Your task to perform on an android device: check android version Image 0: 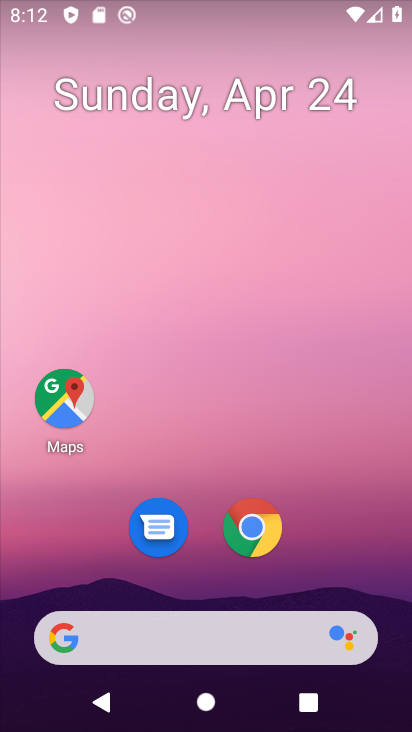
Step 0: drag from (342, 534) to (263, 120)
Your task to perform on an android device: check android version Image 1: 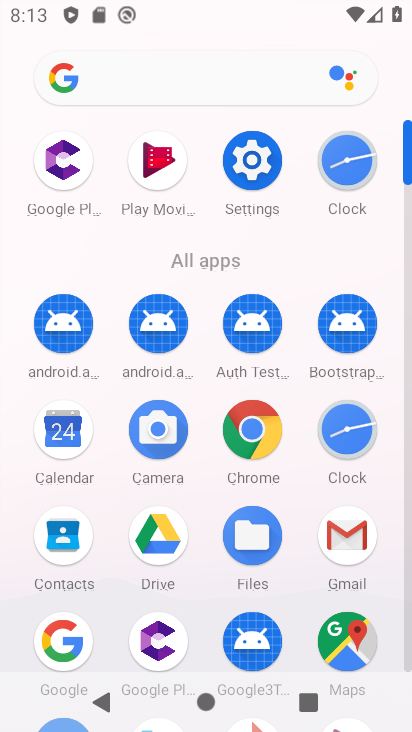
Step 1: click (257, 169)
Your task to perform on an android device: check android version Image 2: 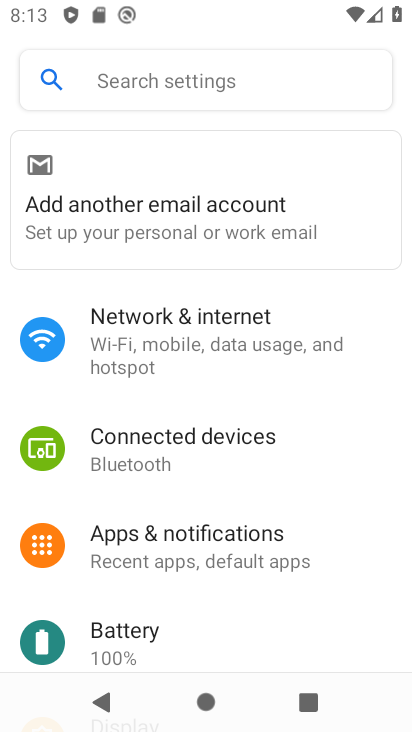
Step 2: drag from (294, 625) to (261, 246)
Your task to perform on an android device: check android version Image 3: 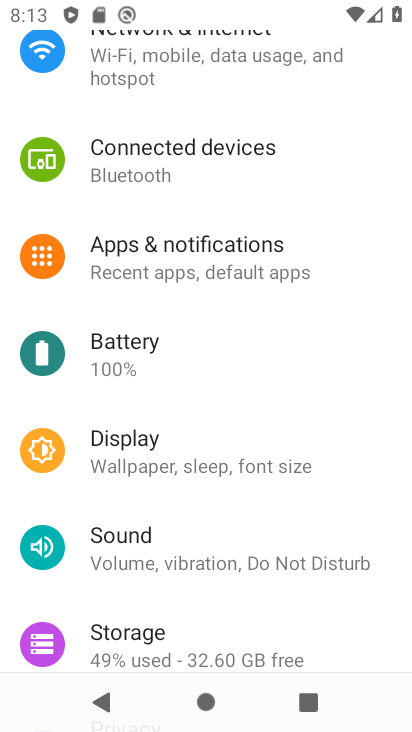
Step 3: drag from (269, 616) to (252, 222)
Your task to perform on an android device: check android version Image 4: 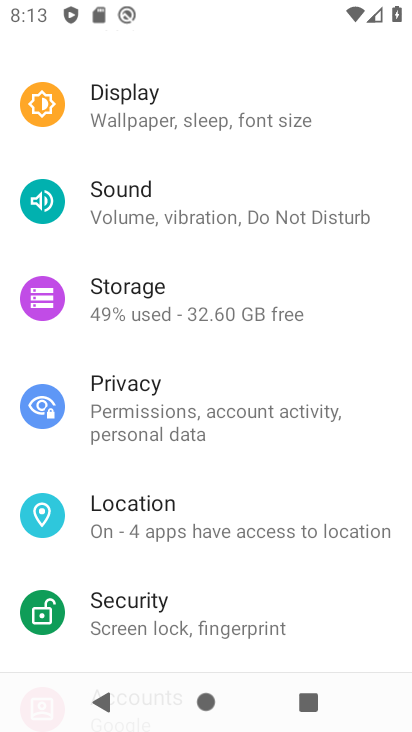
Step 4: drag from (247, 590) to (241, 206)
Your task to perform on an android device: check android version Image 5: 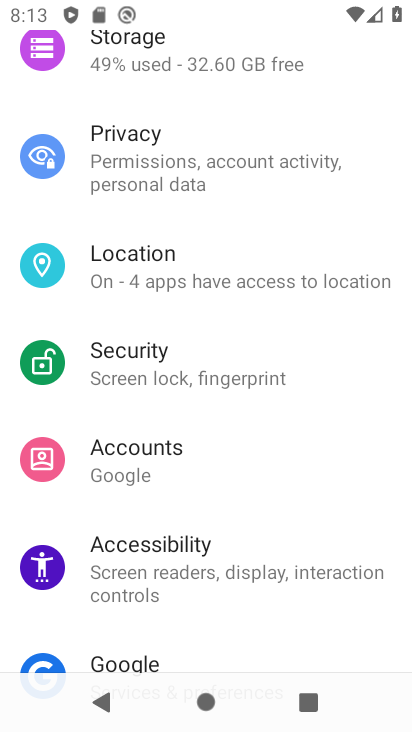
Step 5: drag from (252, 612) to (225, 236)
Your task to perform on an android device: check android version Image 6: 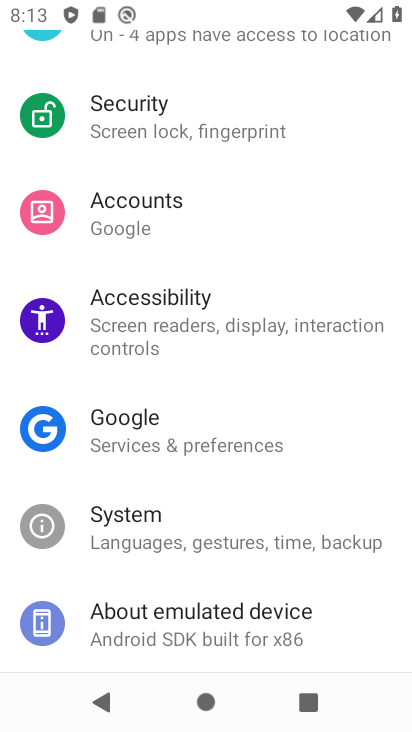
Step 6: click (206, 625)
Your task to perform on an android device: check android version Image 7: 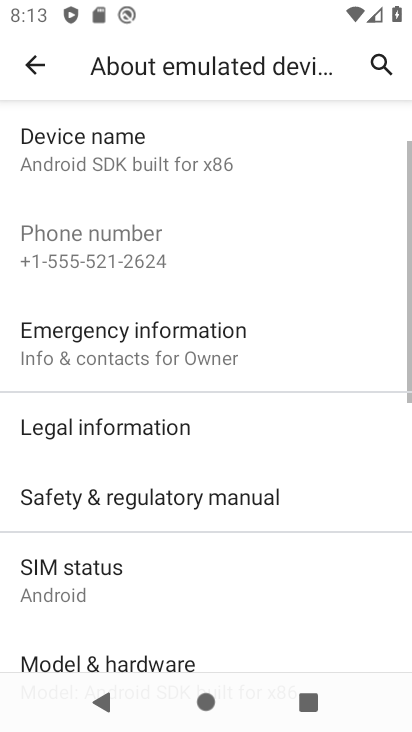
Step 7: drag from (238, 593) to (249, 304)
Your task to perform on an android device: check android version Image 8: 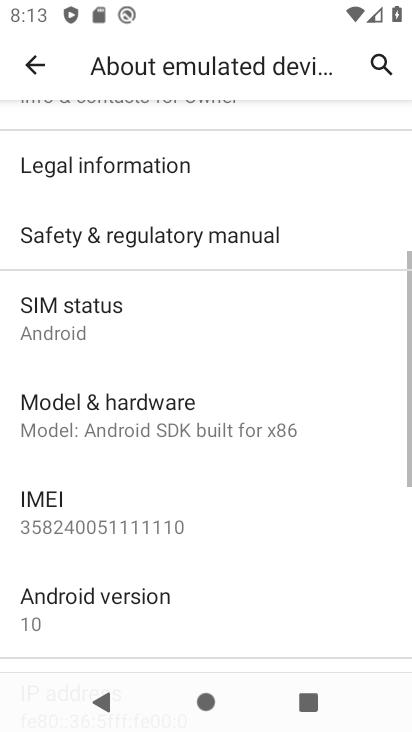
Step 8: click (159, 604)
Your task to perform on an android device: check android version Image 9: 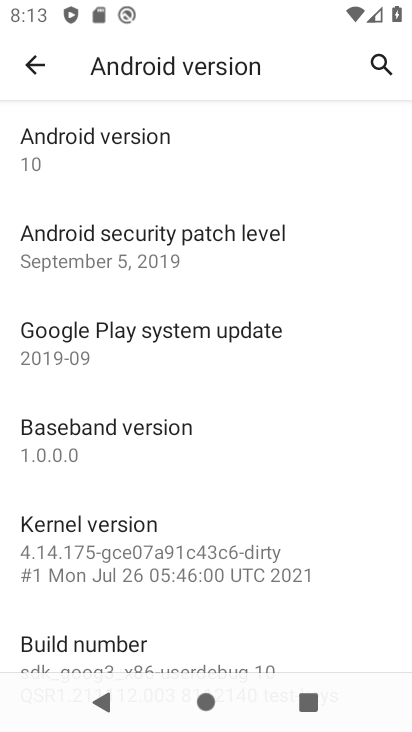
Step 9: click (128, 156)
Your task to perform on an android device: check android version Image 10: 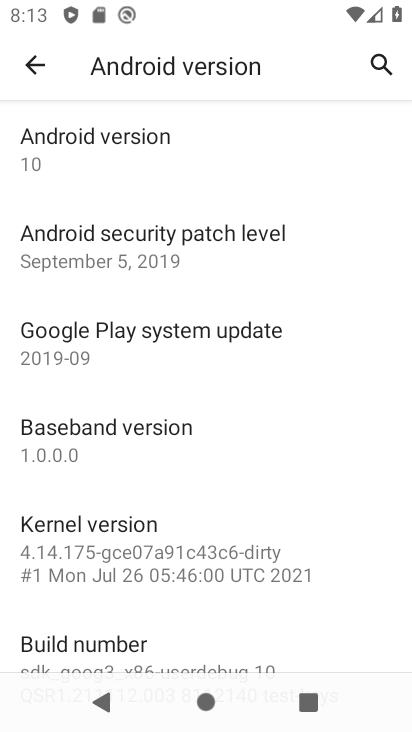
Step 10: task complete